Your task to perform on an android device: toggle show notifications on the lock screen Image 0: 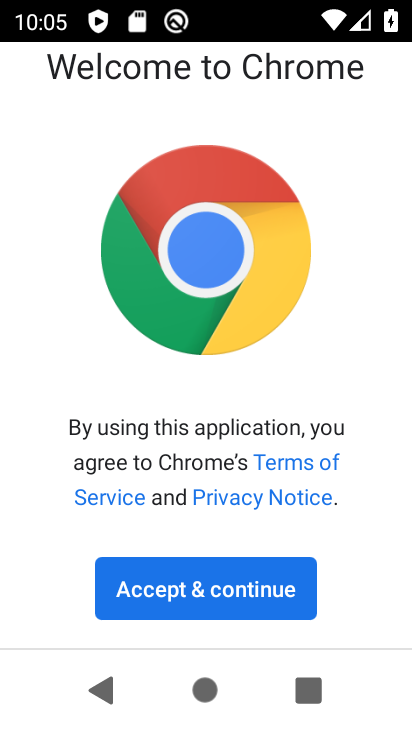
Step 0: press home button
Your task to perform on an android device: toggle show notifications on the lock screen Image 1: 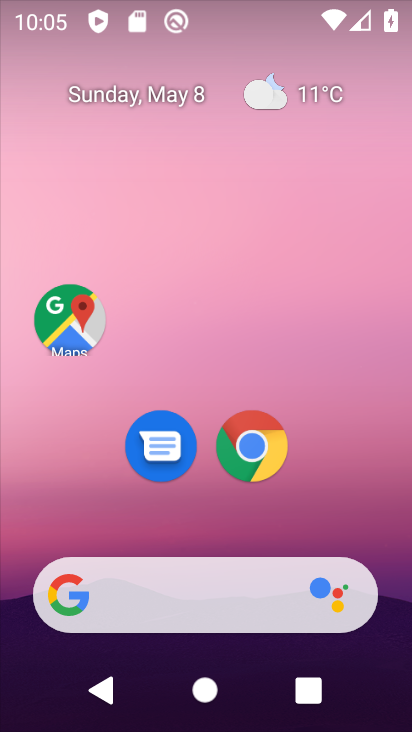
Step 1: drag from (347, 474) to (330, 23)
Your task to perform on an android device: toggle show notifications on the lock screen Image 2: 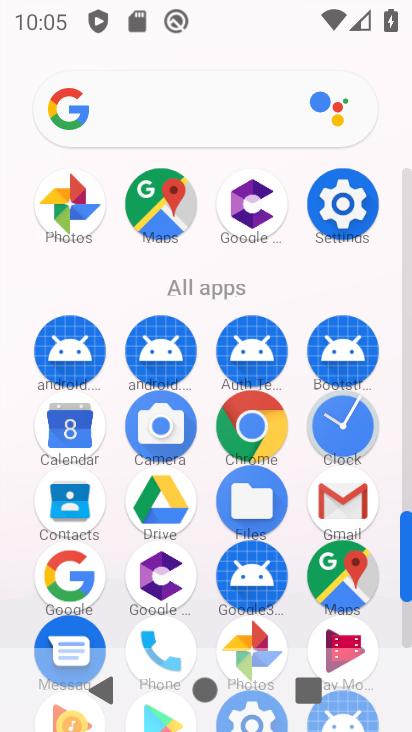
Step 2: click (343, 209)
Your task to perform on an android device: toggle show notifications on the lock screen Image 3: 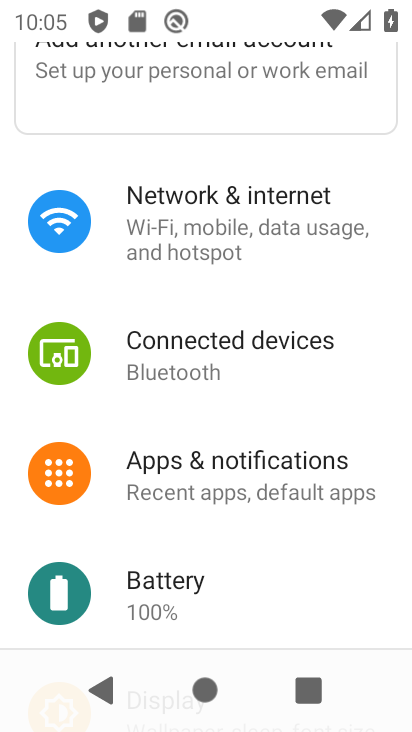
Step 3: click (233, 466)
Your task to perform on an android device: toggle show notifications on the lock screen Image 4: 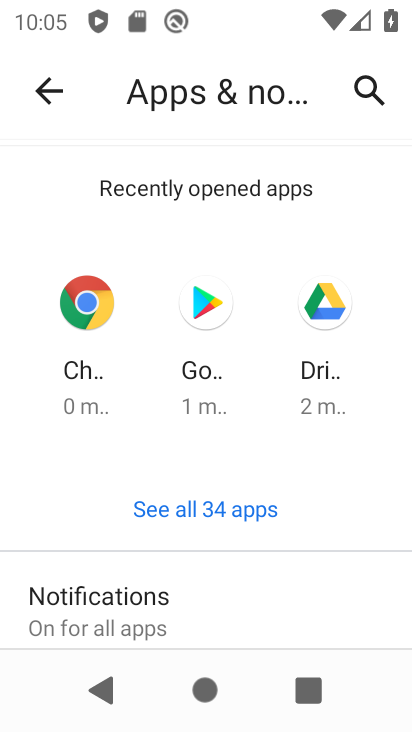
Step 4: drag from (184, 595) to (207, 306)
Your task to perform on an android device: toggle show notifications on the lock screen Image 5: 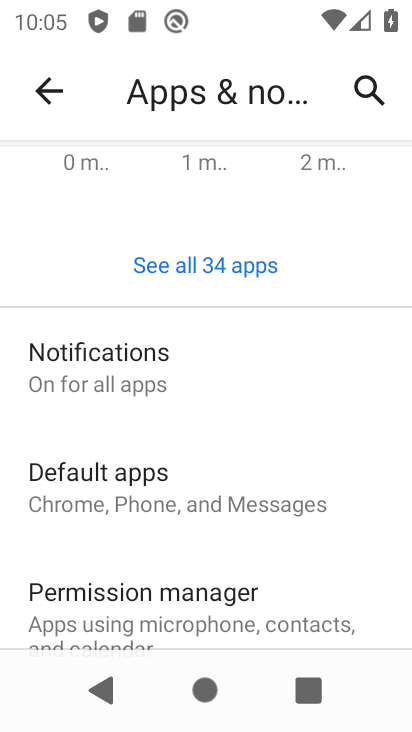
Step 5: click (108, 382)
Your task to perform on an android device: toggle show notifications on the lock screen Image 6: 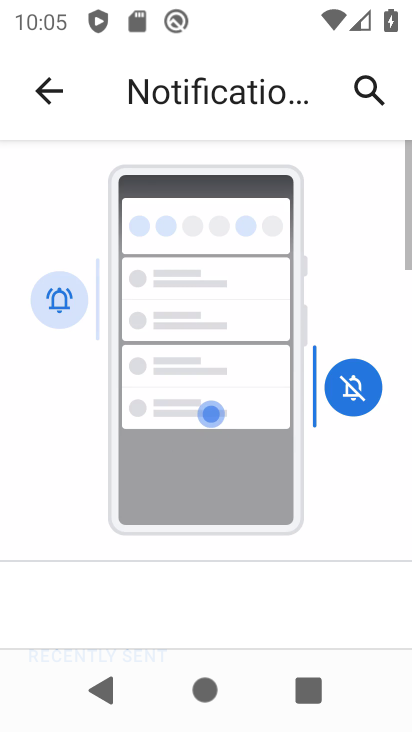
Step 6: drag from (226, 543) to (228, 140)
Your task to perform on an android device: toggle show notifications on the lock screen Image 7: 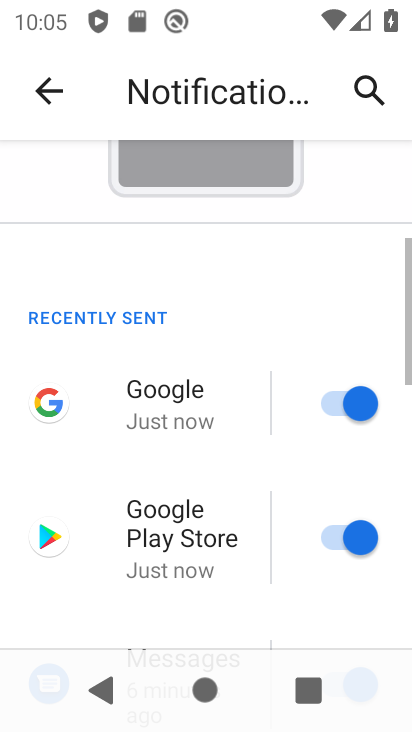
Step 7: drag from (212, 545) to (202, 167)
Your task to perform on an android device: toggle show notifications on the lock screen Image 8: 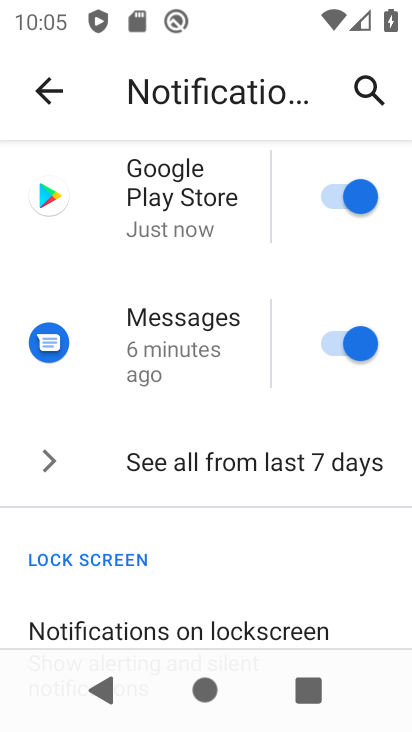
Step 8: drag from (212, 503) to (211, 226)
Your task to perform on an android device: toggle show notifications on the lock screen Image 9: 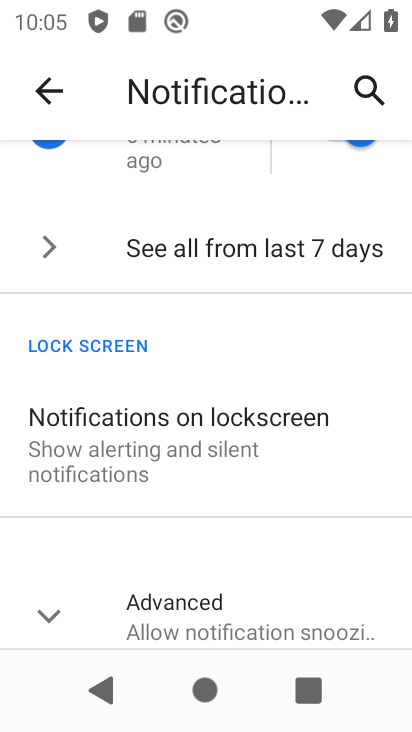
Step 9: drag from (174, 521) to (174, 238)
Your task to perform on an android device: toggle show notifications on the lock screen Image 10: 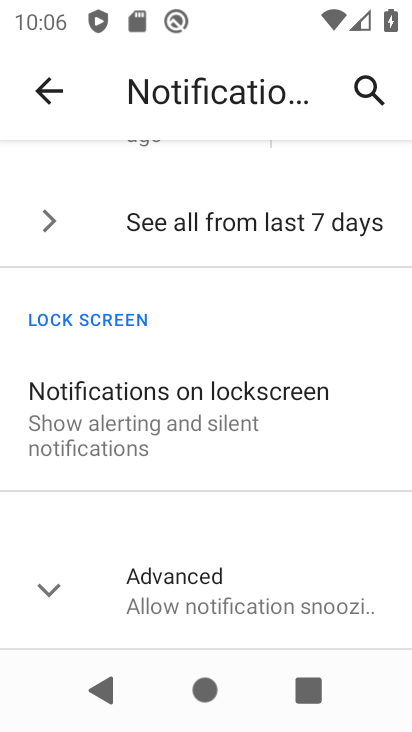
Step 10: click (133, 400)
Your task to perform on an android device: toggle show notifications on the lock screen Image 11: 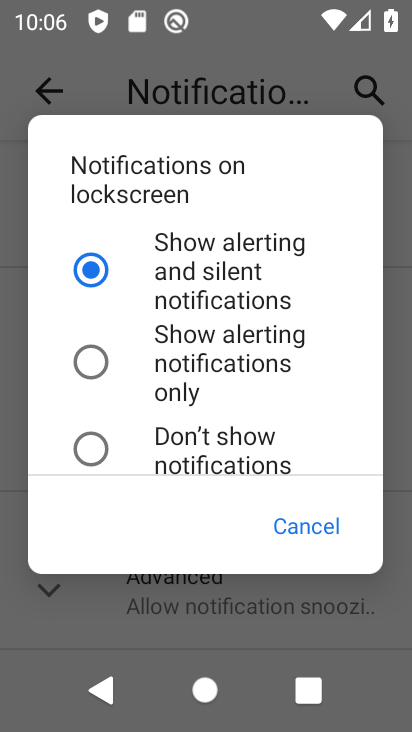
Step 11: click (90, 458)
Your task to perform on an android device: toggle show notifications on the lock screen Image 12: 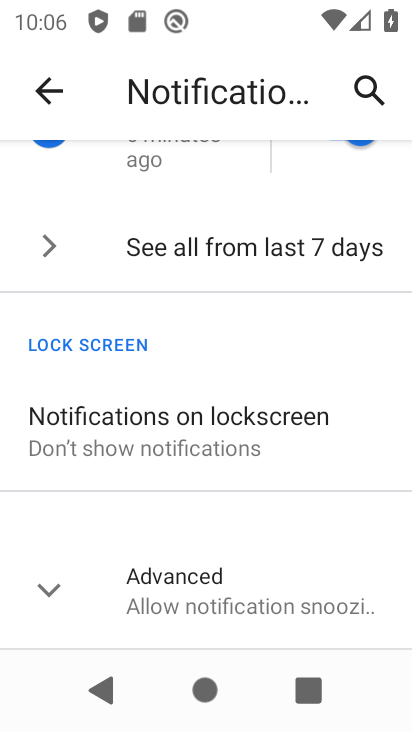
Step 12: task complete